Your task to perform on an android device: turn off notifications settings in the gmail app Image 0: 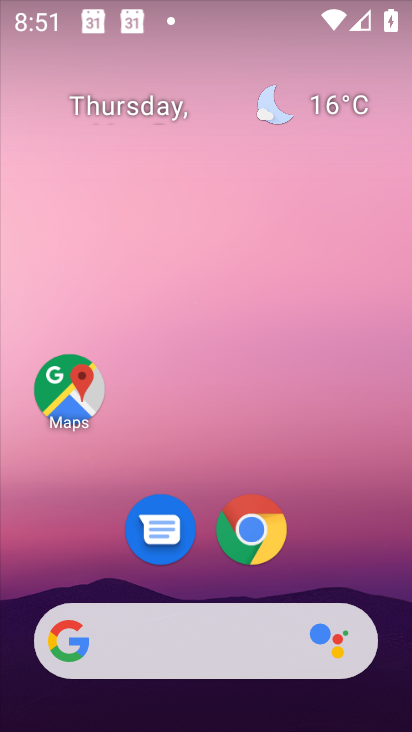
Step 0: drag from (321, 507) to (210, 0)
Your task to perform on an android device: turn off notifications settings in the gmail app Image 1: 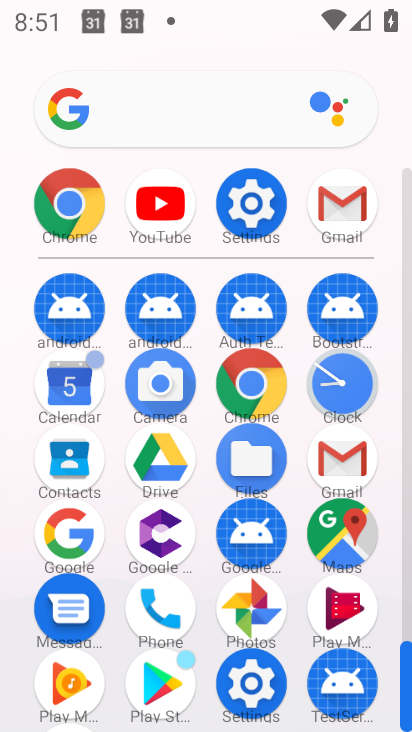
Step 1: click (337, 203)
Your task to perform on an android device: turn off notifications settings in the gmail app Image 2: 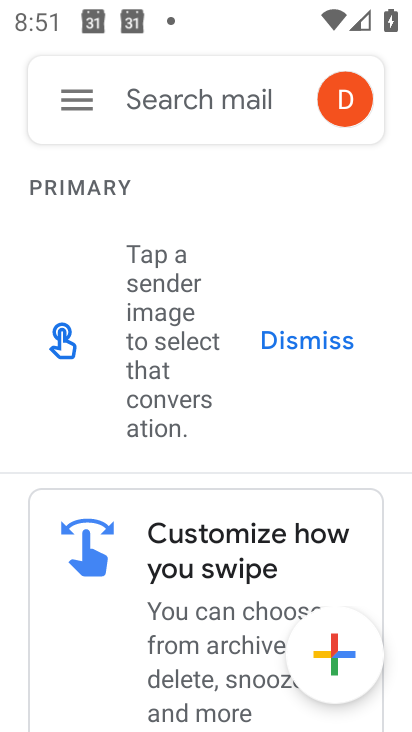
Step 2: click (83, 101)
Your task to perform on an android device: turn off notifications settings in the gmail app Image 3: 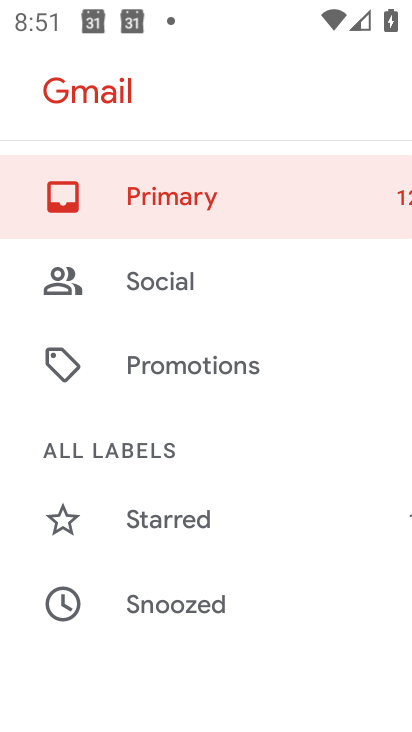
Step 3: drag from (249, 512) to (212, 159)
Your task to perform on an android device: turn off notifications settings in the gmail app Image 4: 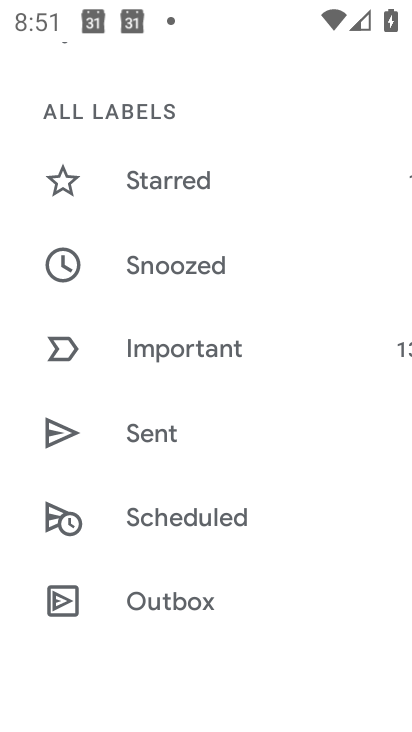
Step 4: drag from (215, 553) to (189, 227)
Your task to perform on an android device: turn off notifications settings in the gmail app Image 5: 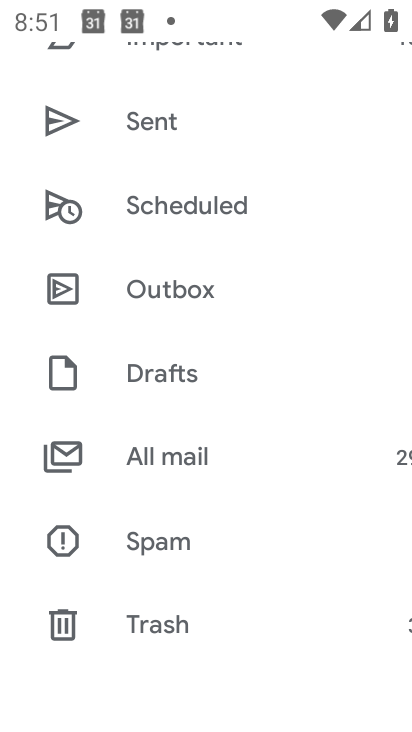
Step 5: drag from (193, 570) to (132, 214)
Your task to perform on an android device: turn off notifications settings in the gmail app Image 6: 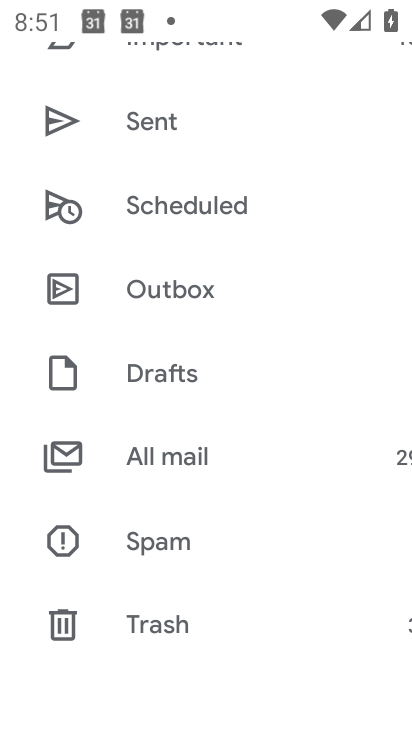
Step 6: drag from (192, 574) to (188, 167)
Your task to perform on an android device: turn off notifications settings in the gmail app Image 7: 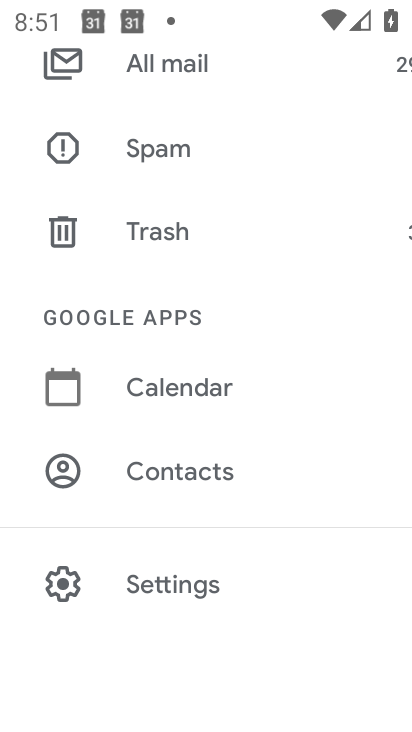
Step 7: click (172, 585)
Your task to perform on an android device: turn off notifications settings in the gmail app Image 8: 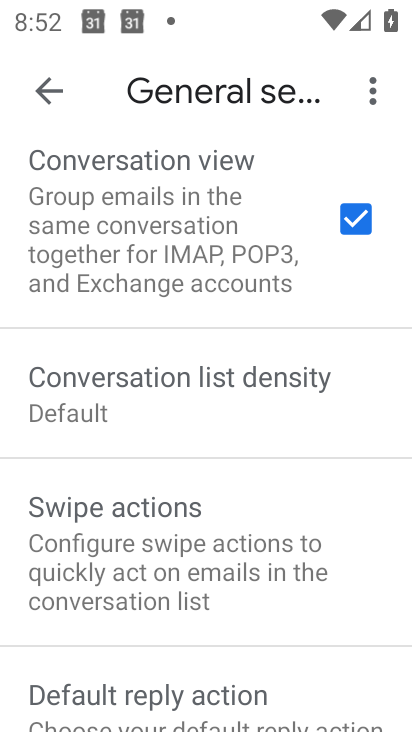
Step 8: drag from (258, 301) to (265, 684)
Your task to perform on an android device: turn off notifications settings in the gmail app Image 9: 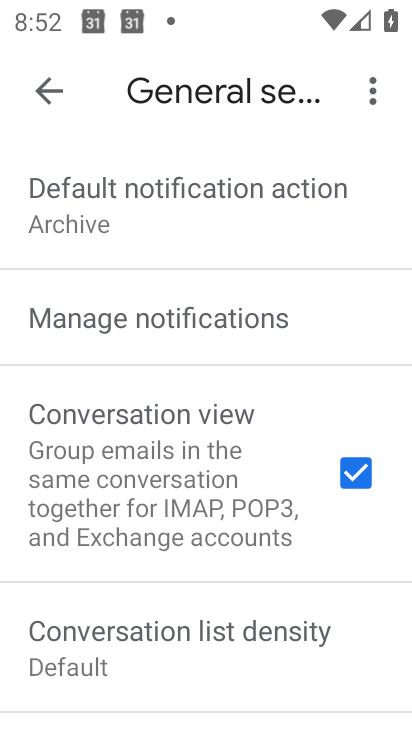
Step 9: click (168, 314)
Your task to perform on an android device: turn off notifications settings in the gmail app Image 10: 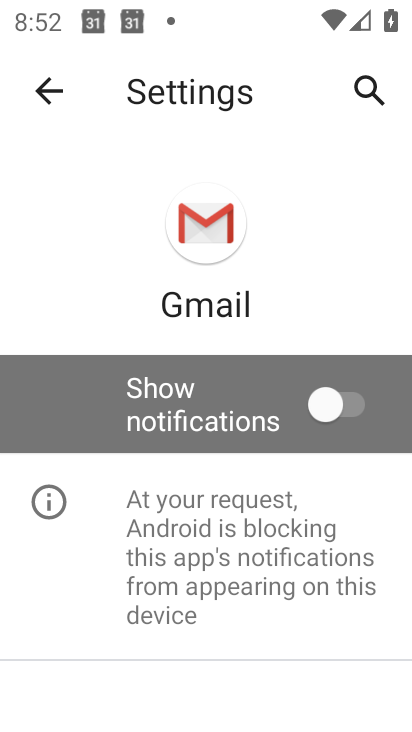
Step 10: task complete